Your task to perform on an android device: Open Yahoo.com Image 0: 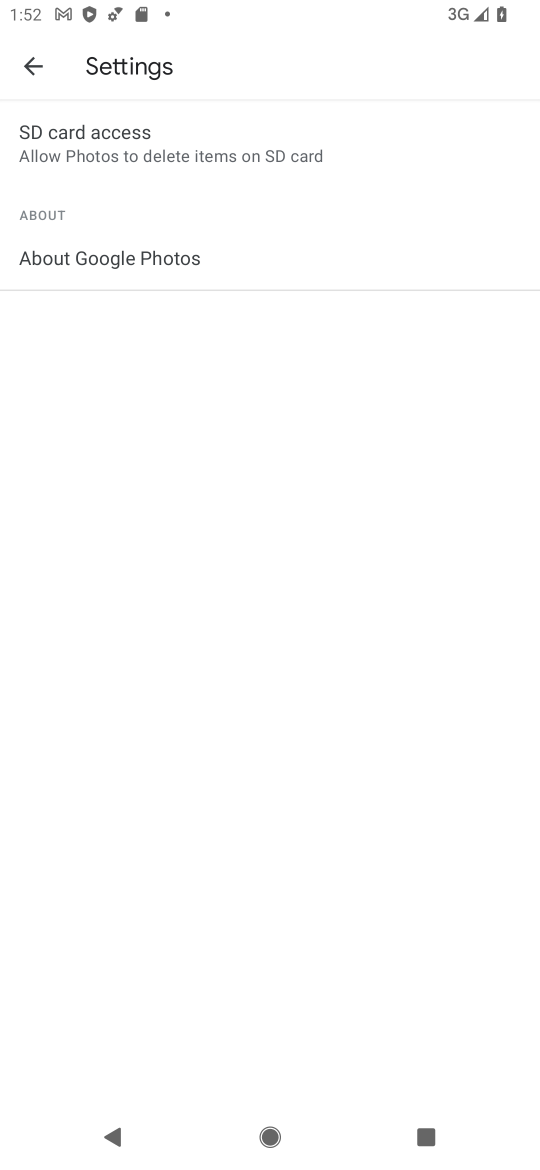
Step 0: press home button
Your task to perform on an android device: Open Yahoo.com Image 1: 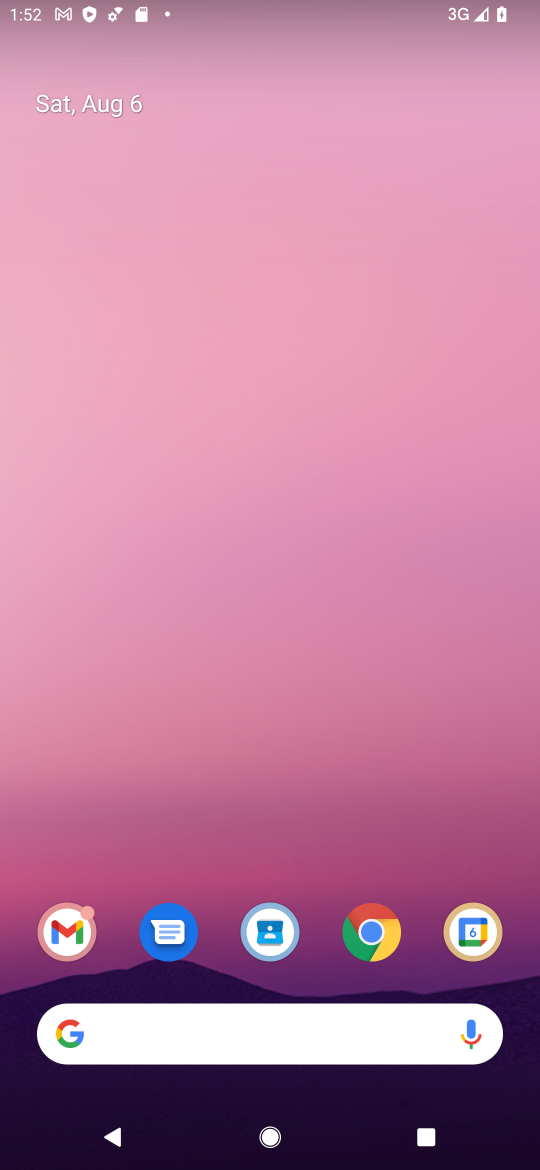
Step 1: drag from (349, 960) to (313, 168)
Your task to perform on an android device: Open Yahoo.com Image 2: 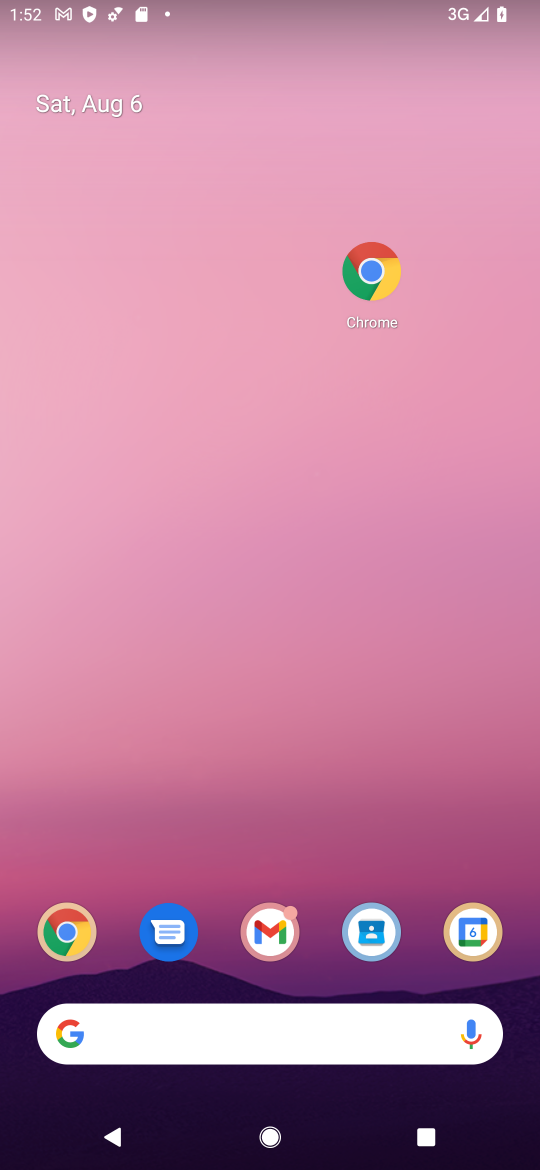
Step 2: click (367, 833)
Your task to perform on an android device: Open Yahoo.com Image 3: 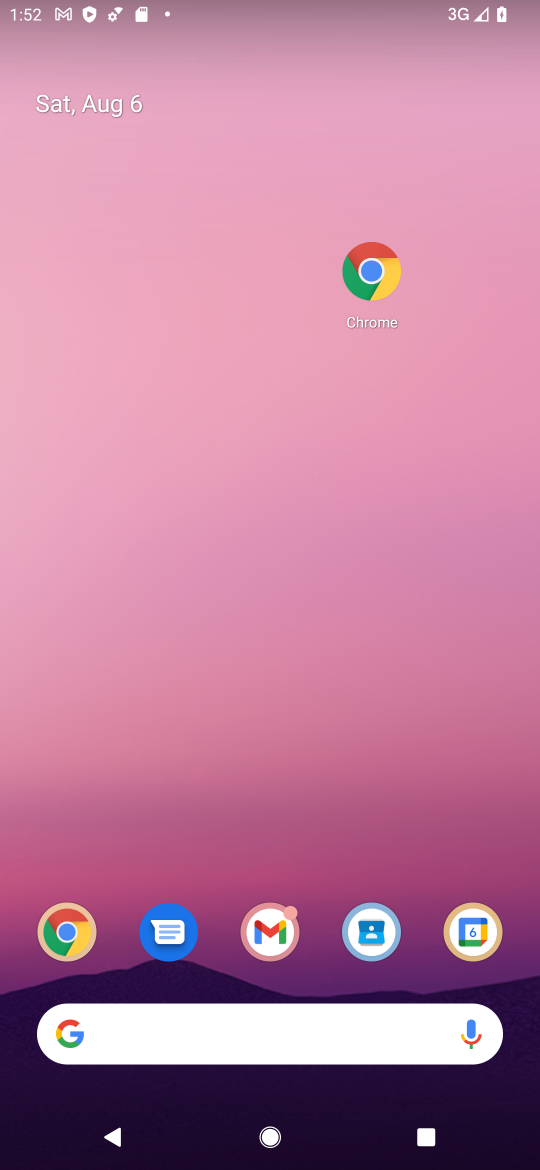
Step 3: drag from (405, 957) to (246, 84)
Your task to perform on an android device: Open Yahoo.com Image 4: 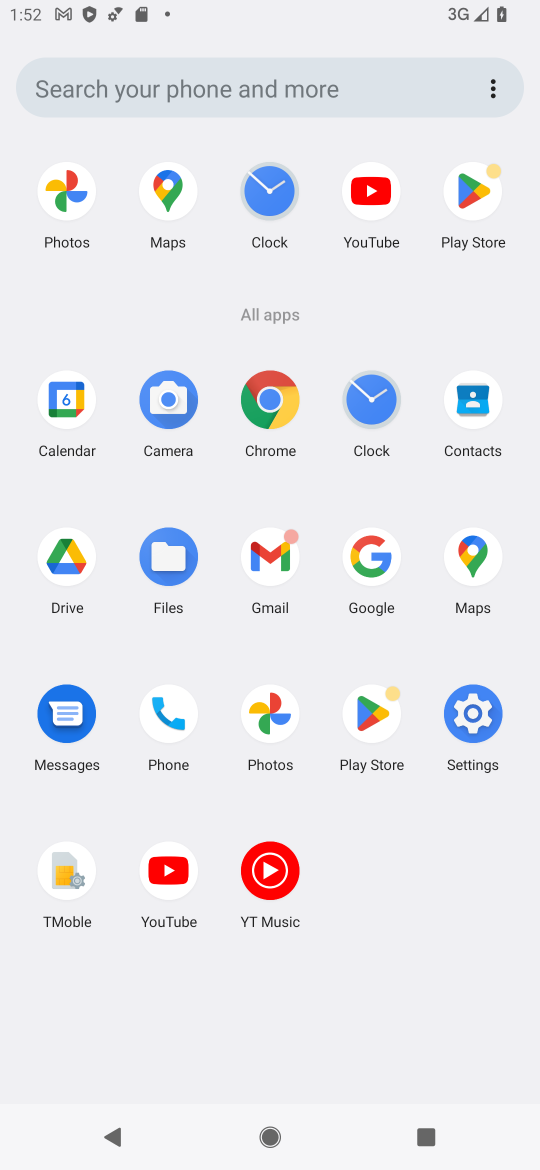
Step 4: click (278, 398)
Your task to perform on an android device: Open Yahoo.com Image 5: 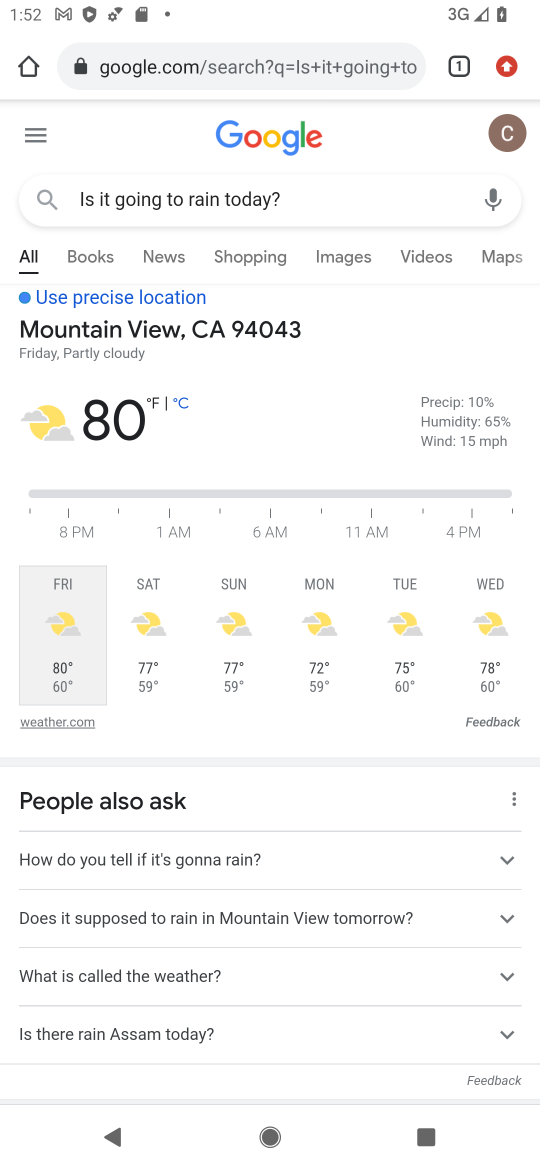
Step 5: click (255, 59)
Your task to perform on an android device: Open Yahoo.com Image 6: 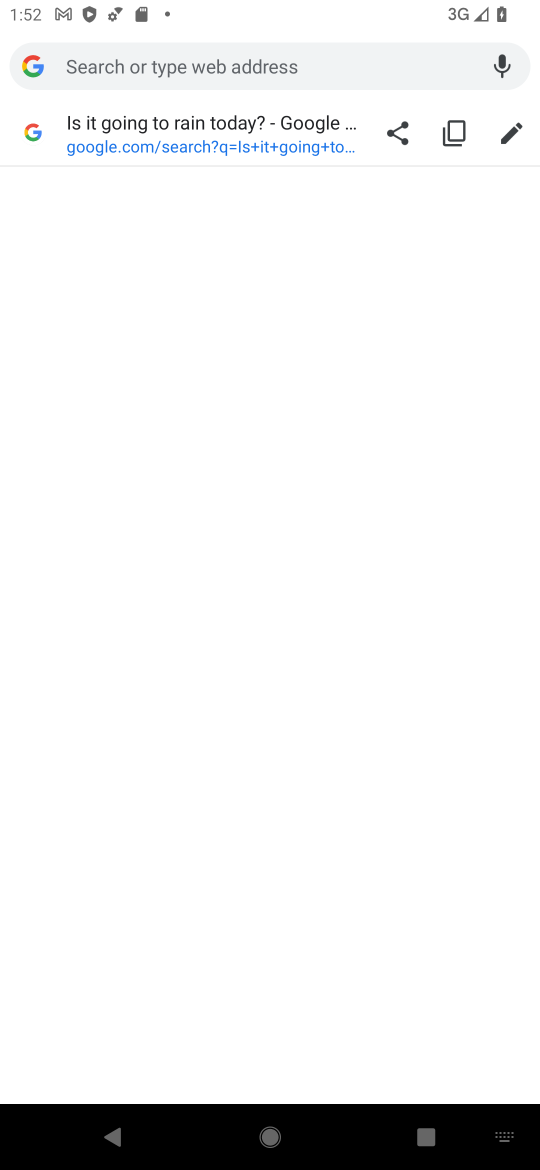
Step 6: type " Yahoo.com"
Your task to perform on an android device: Open Yahoo.com Image 7: 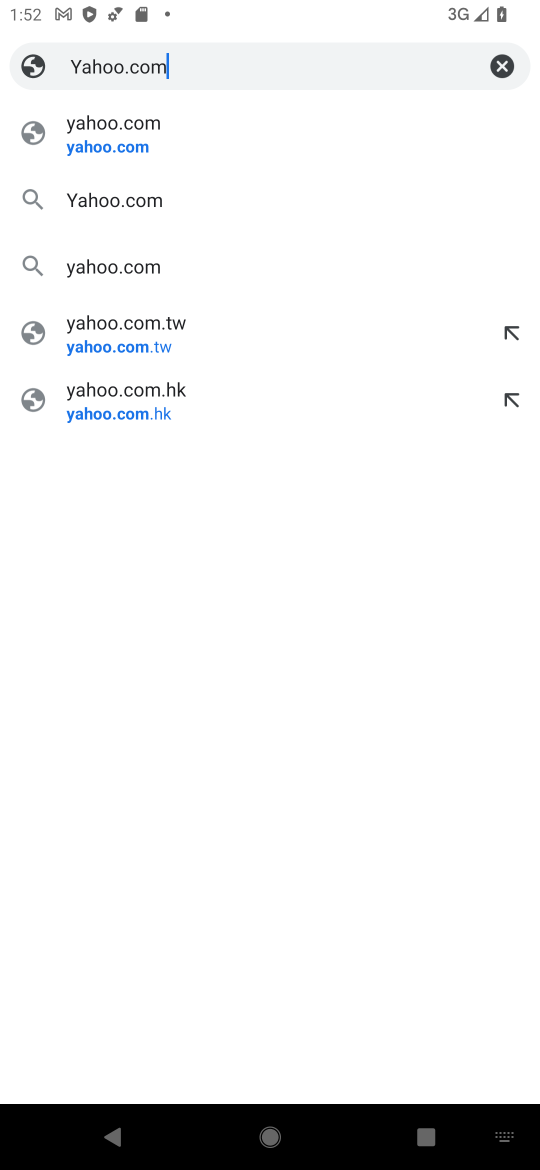
Step 7: click (86, 140)
Your task to perform on an android device: Open Yahoo.com Image 8: 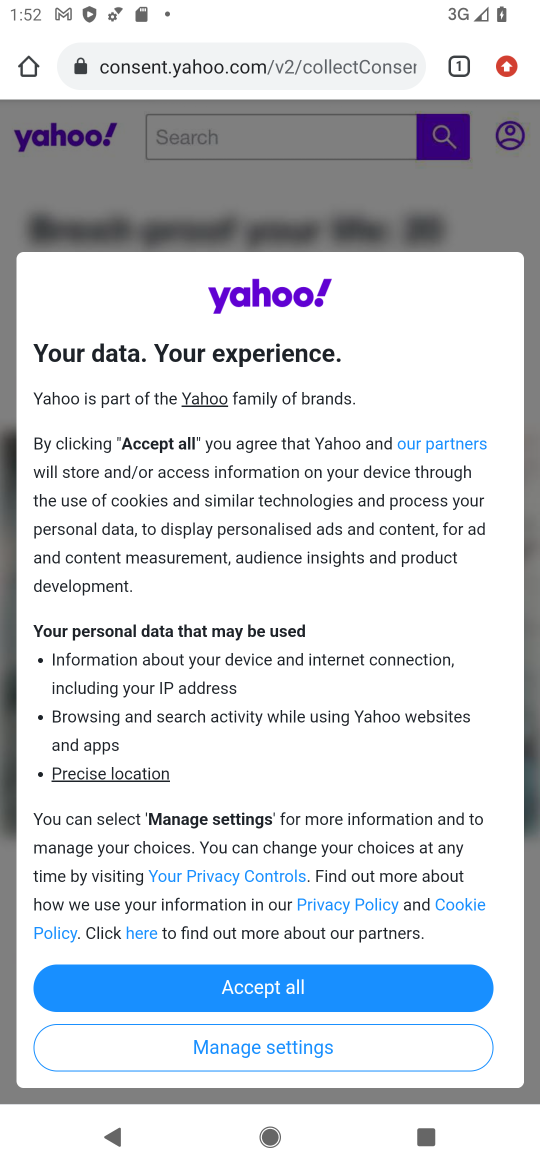
Step 8: click (214, 974)
Your task to perform on an android device: Open Yahoo.com Image 9: 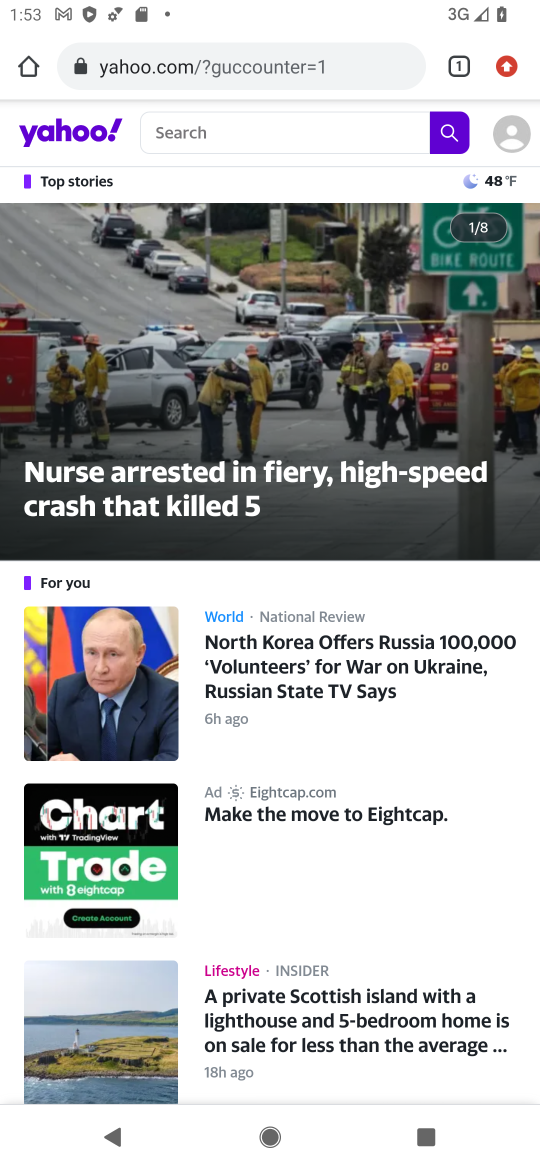
Step 9: task complete